Your task to perform on an android device: open device folders in google photos Image 0: 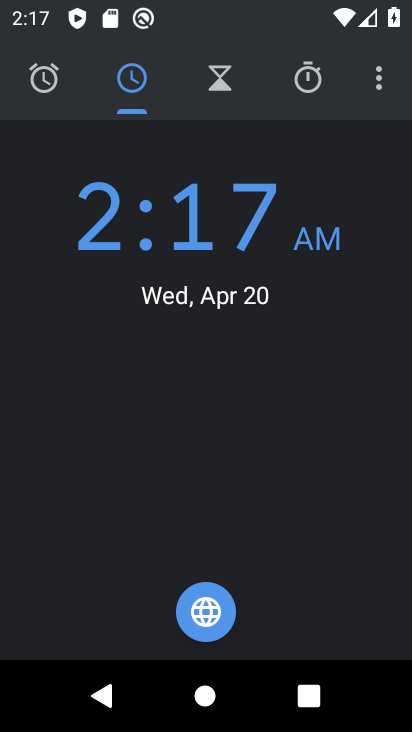
Step 0: press back button
Your task to perform on an android device: open device folders in google photos Image 1: 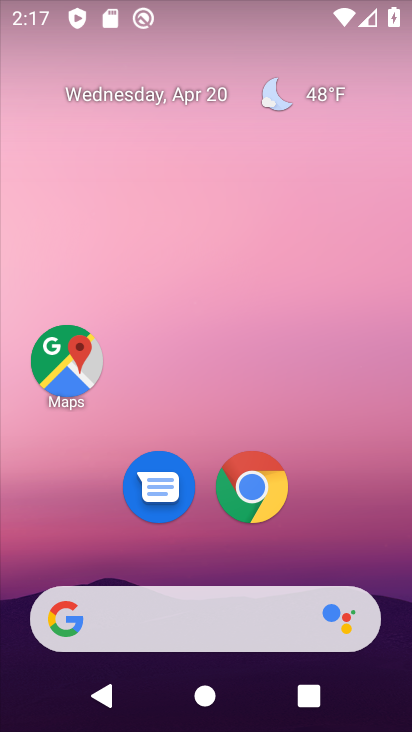
Step 1: drag from (191, 554) to (180, 190)
Your task to perform on an android device: open device folders in google photos Image 2: 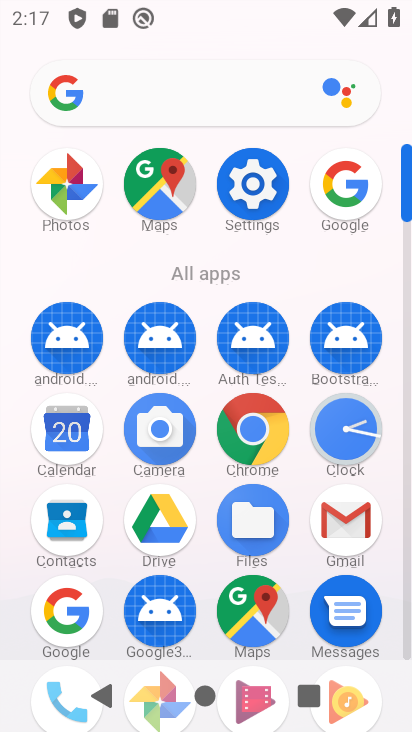
Step 2: click (56, 191)
Your task to perform on an android device: open device folders in google photos Image 3: 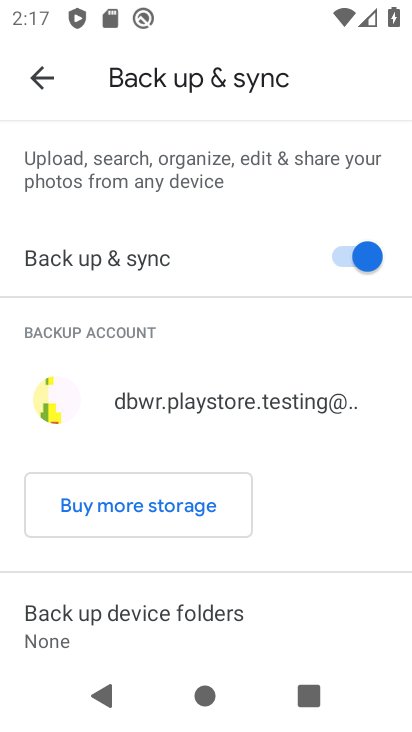
Step 3: click (39, 86)
Your task to perform on an android device: open device folders in google photos Image 4: 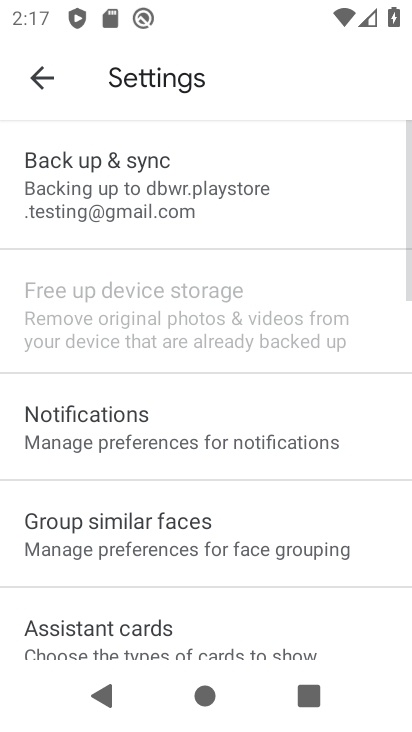
Step 4: click (43, 78)
Your task to perform on an android device: open device folders in google photos Image 5: 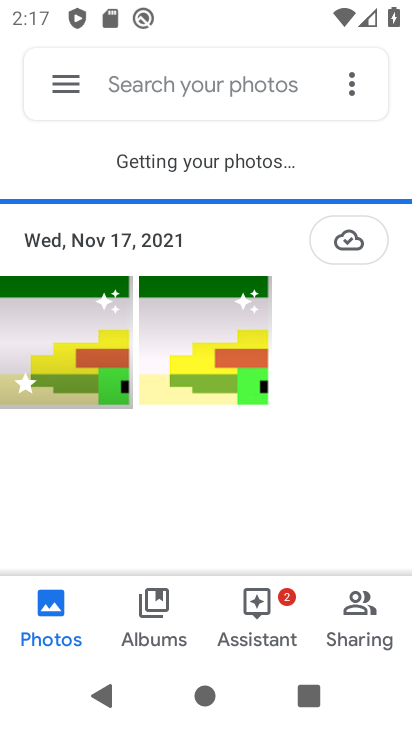
Step 5: click (65, 88)
Your task to perform on an android device: open device folders in google photos Image 6: 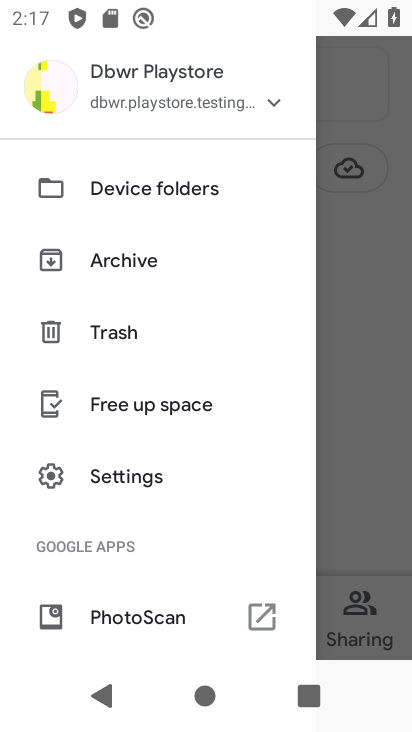
Step 6: click (127, 191)
Your task to perform on an android device: open device folders in google photos Image 7: 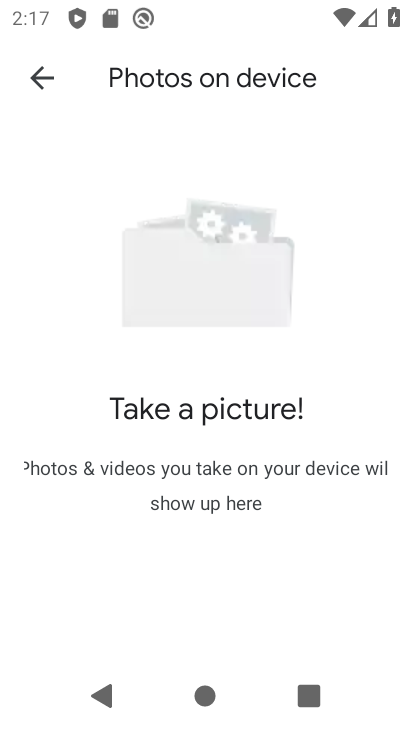
Step 7: task complete